Your task to perform on an android device: Go to ESPN.com Image 0: 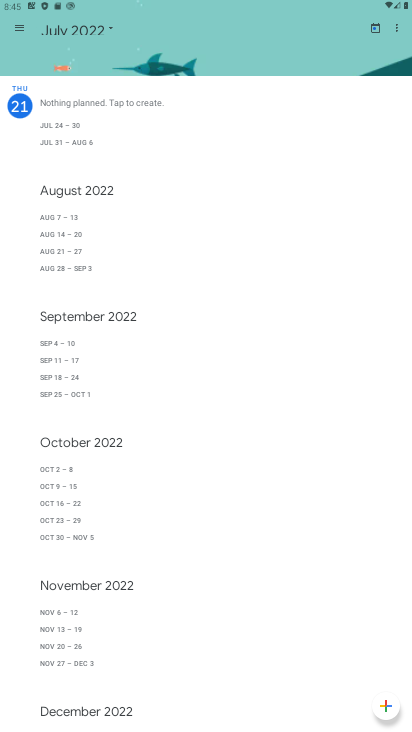
Step 0: press home button
Your task to perform on an android device: Go to ESPN.com Image 1: 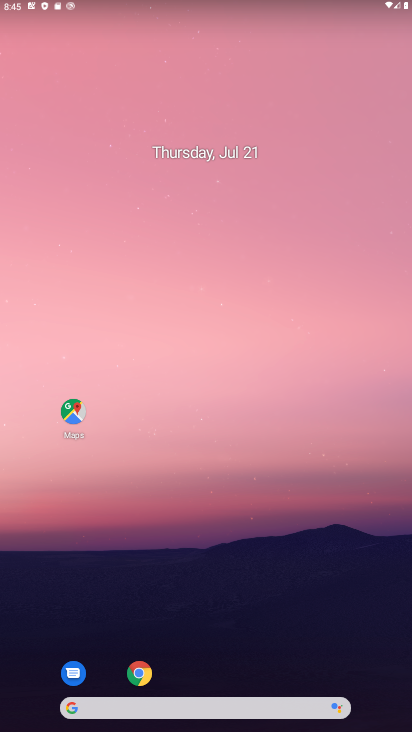
Step 1: drag from (226, 727) to (221, 277)
Your task to perform on an android device: Go to ESPN.com Image 2: 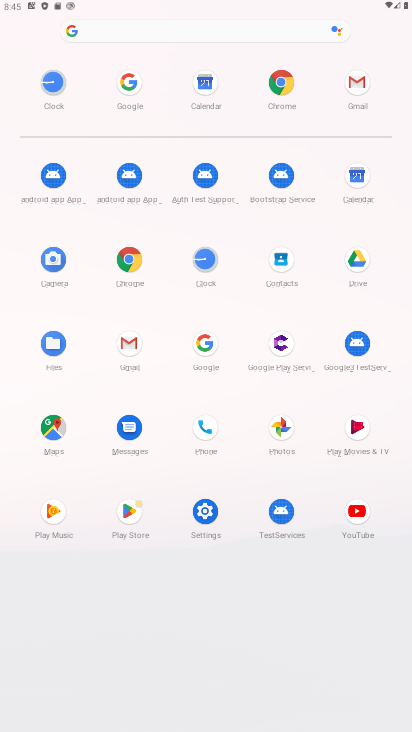
Step 2: click (284, 82)
Your task to perform on an android device: Go to ESPN.com Image 3: 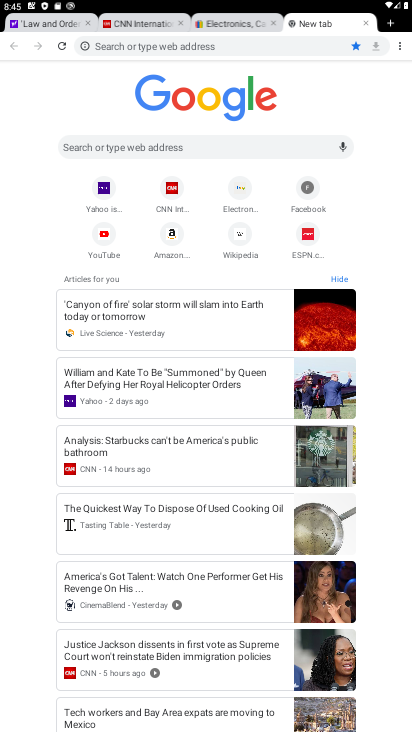
Step 3: click (311, 233)
Your task to perform on an android device: Go to ESPN.com Image 4: 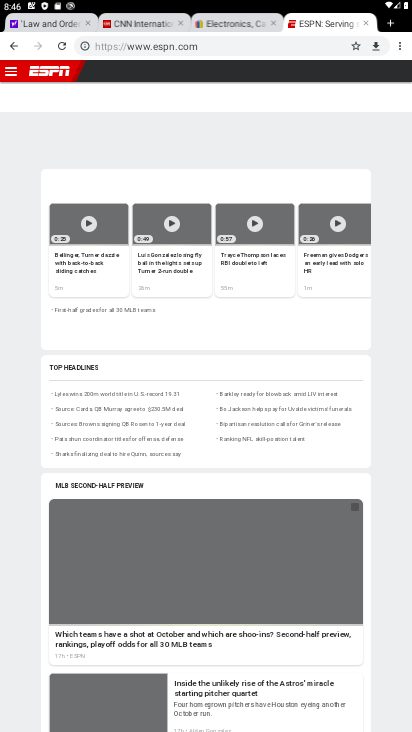
Step 4: task complete